Your task to perform on an android device: Open the calendar and show me this week's events Image 0: 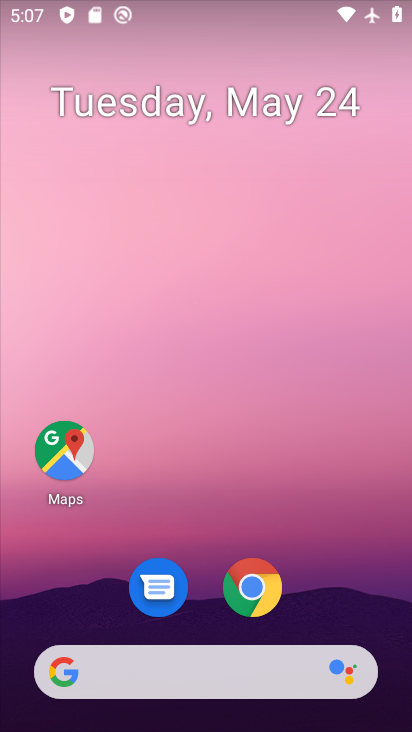
Step 0: press home button
Your task to perform on an android device: Open the calendar and show me this week's events Image 1: 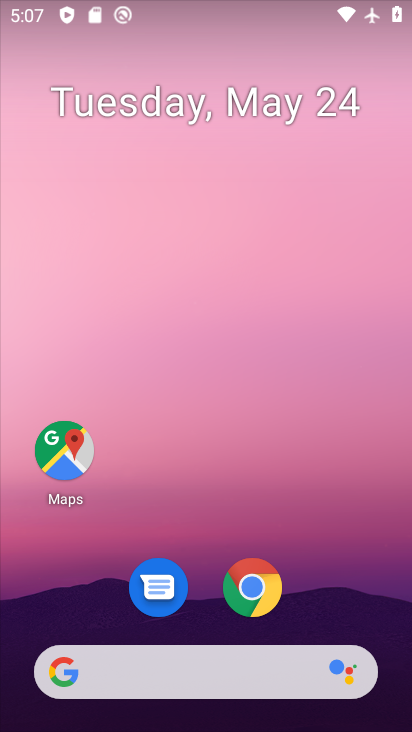
Step 1: drag from (345, 593) to (169, 50)
Your task to perform on an android device: Open the calendar and show me this week's events Image 2: 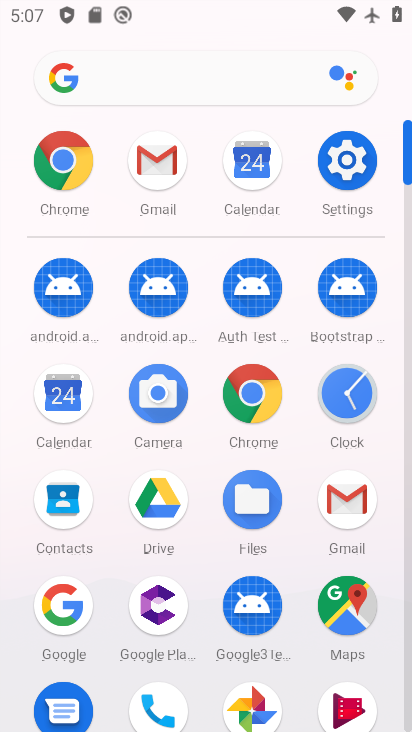
Step 2: click (60, 384)
Your task to perform on an android device: Open the calendar and show me this week's events Image 3: 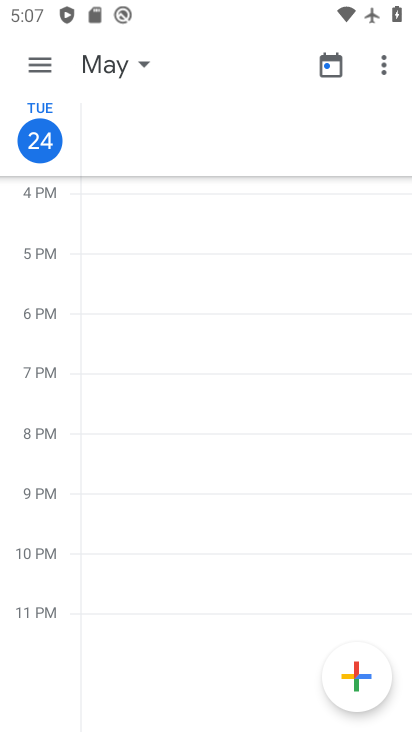
Step 3: click (39, 64)
Your task to perform on an android device: Open the calendar and show me this week's events Image 4: 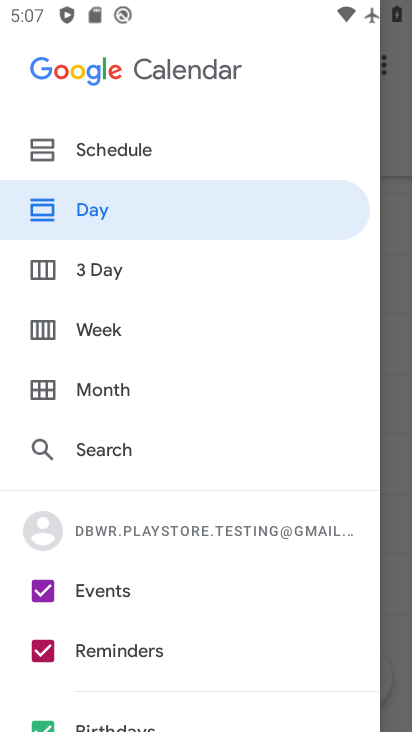
Step 4: click (171, 335)
Your task to perform on an android device: Open the calendar and show me this week's events Image 5: 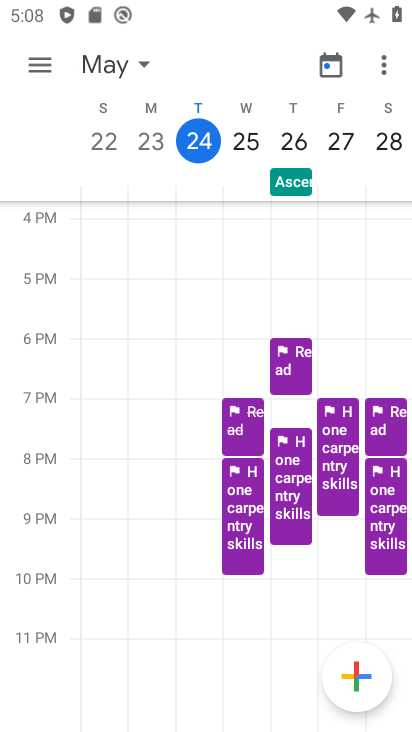
Step 5: task complete